Your task to perform on an android device: Go to Wikipedia Image 0: 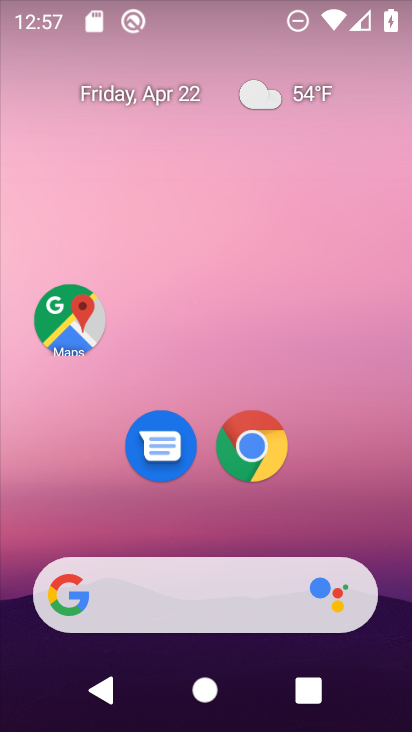
Step 0: click (265, 450)
Your task to perform on an android device: Go to Wikipedia Image 1: 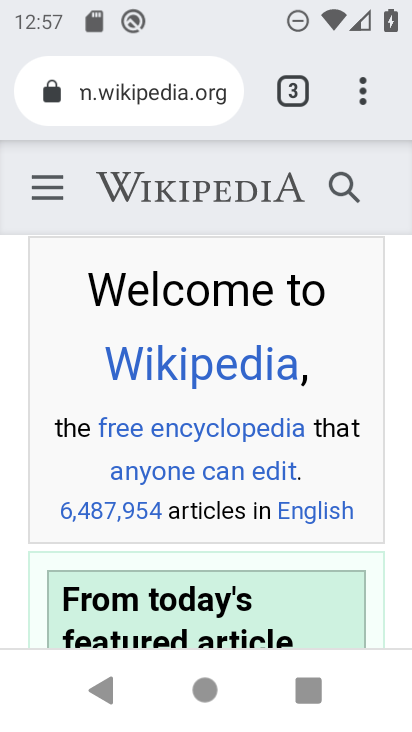
Step 1: task complete